Your task to perform on an android device: change notifications settings Image 0: 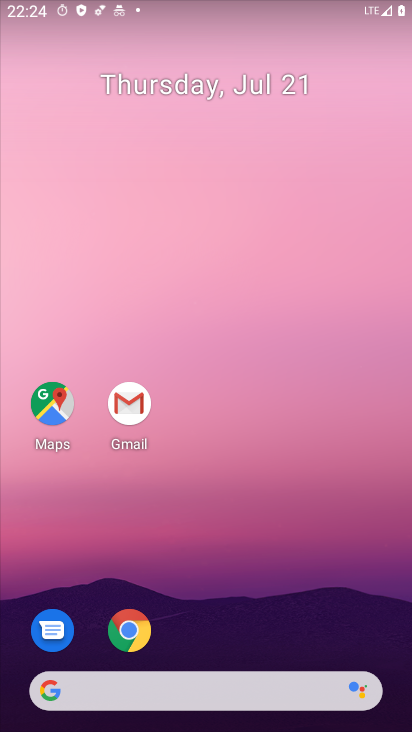
Step 0: drag from (238, 621) to (191, 203)
Your task to perform on an android device: change notifications settings Image 1: 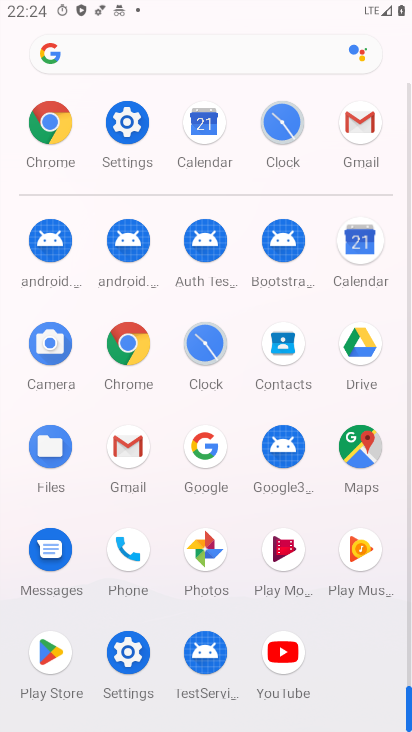
Step 1: click (141, 643)
Your task to perform on an android device: change notifications settings Image 2: 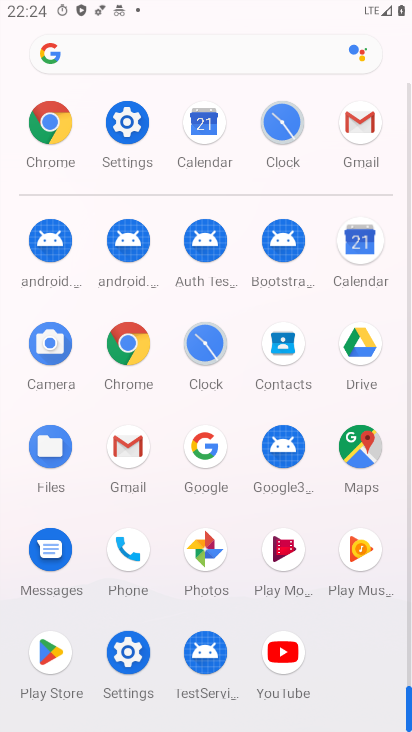
Step 2: click (141, 640)
Your task to perform on an android device: change notifications settings Image 3: 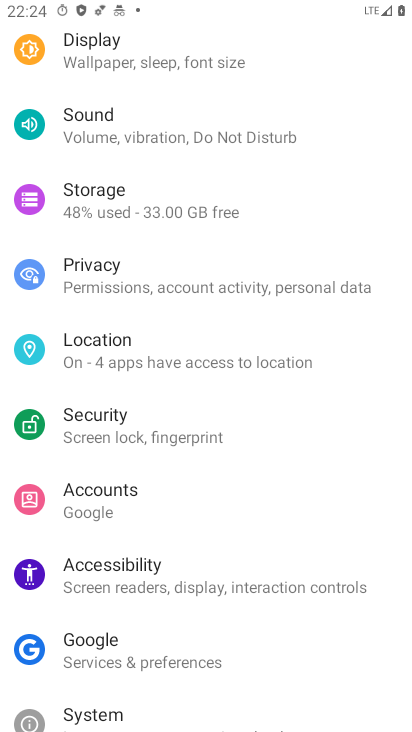
Step 3: drag from (131, 169) to (132, 529)
Your task to perform on an android device: change notifications settings Image 4: 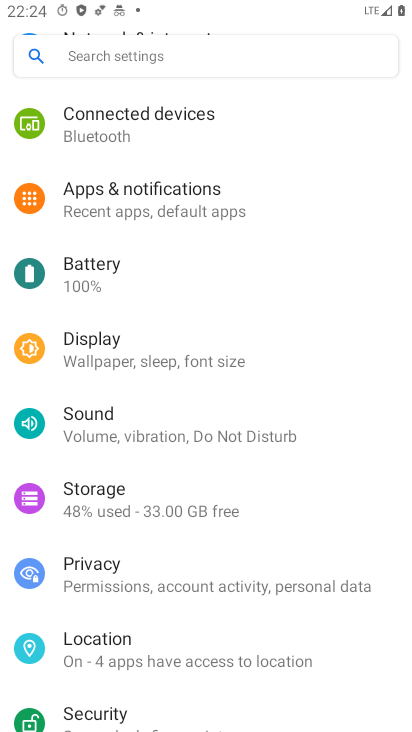
Step 4: drag from (85, 199) to (117, 467)
Your task to perform on an android device: change notifications settings Image 5: 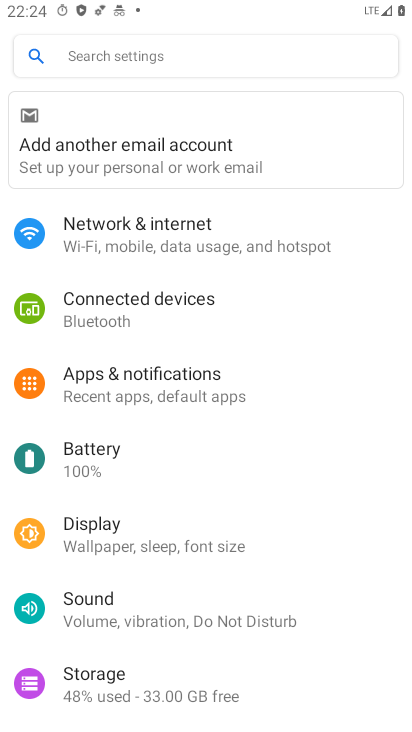
Step 5: click (147, 370)
Your task to perform on an android device: change notifications settings Image 6: 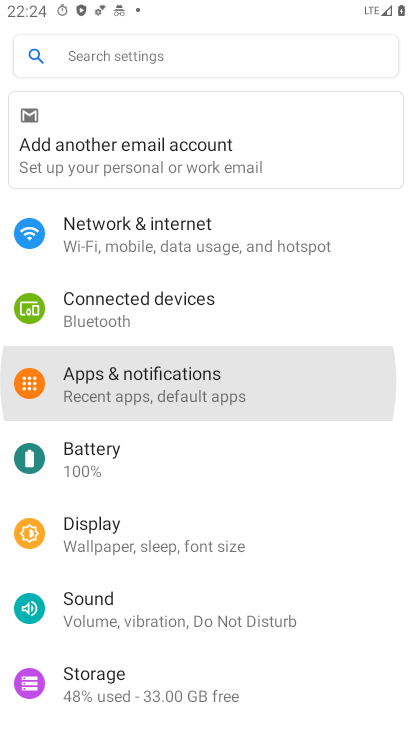
Step 6: click (145, 372)
Your task to perform on an android device: change notifications settings Image 7: 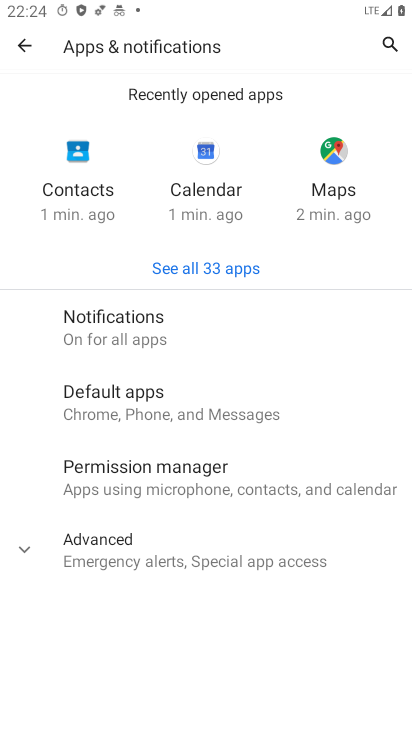
Step 7: click (106, 321)
Your task to perform on an android device: change notifications settings Image 8: 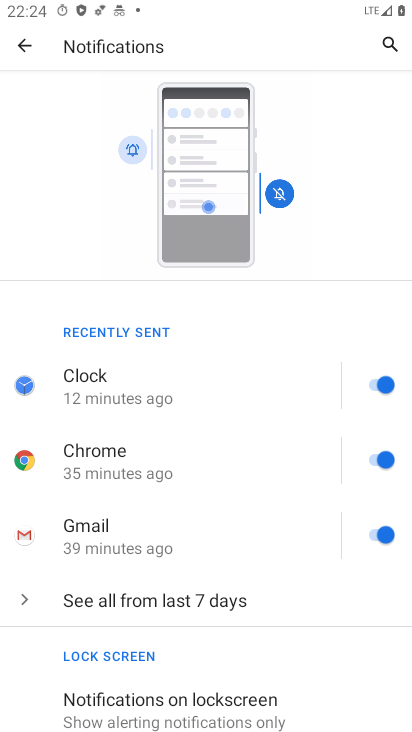
Step 8: click (383, 378)
Your task to perform on an android device: change notifications settings Image 9: 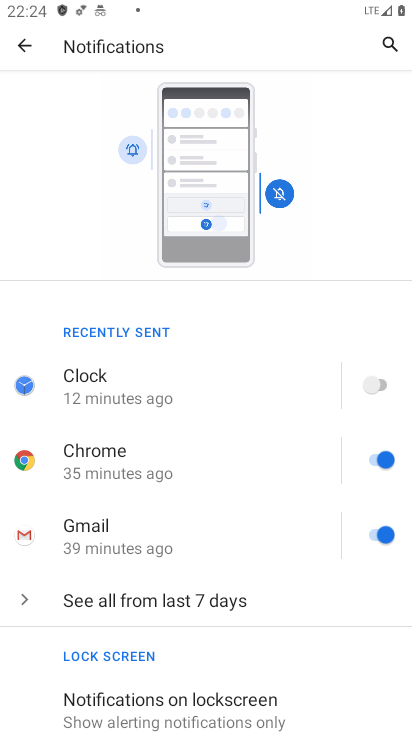
Step 9: click (386, 463)
Your task to perform on an android device: change notifications settings Image 10: 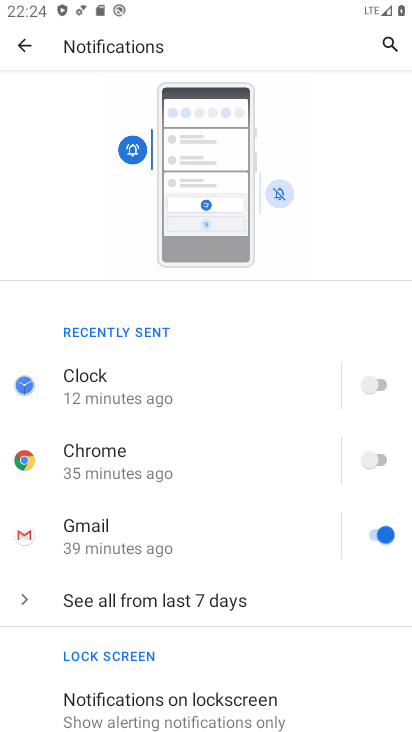
Step 10: click (385, 533)
Your task to perform on an android device: change notifications settings Image 11: 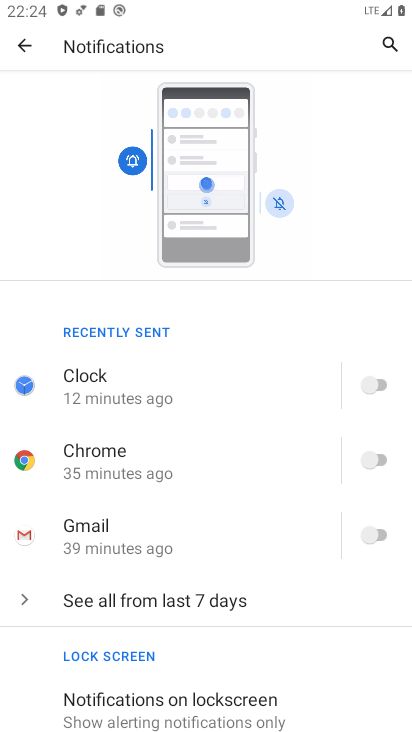
Step 11: click (203, 353)
Your task to perform on an android device: change notifications settings Image 12: 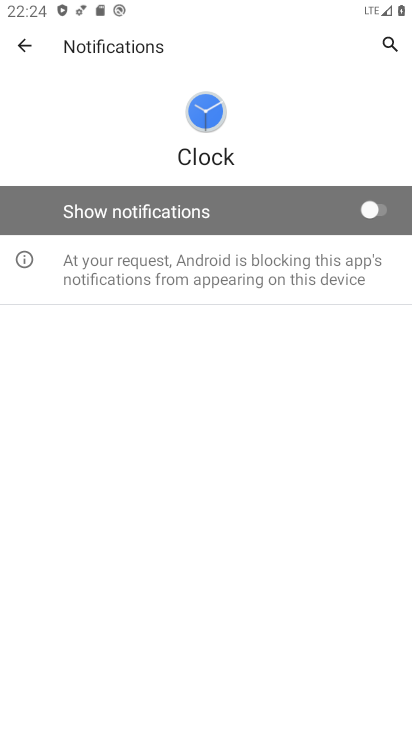
Step 12: click (235, 707)
Your task to perform on an android device: change notifications settings Image 13: 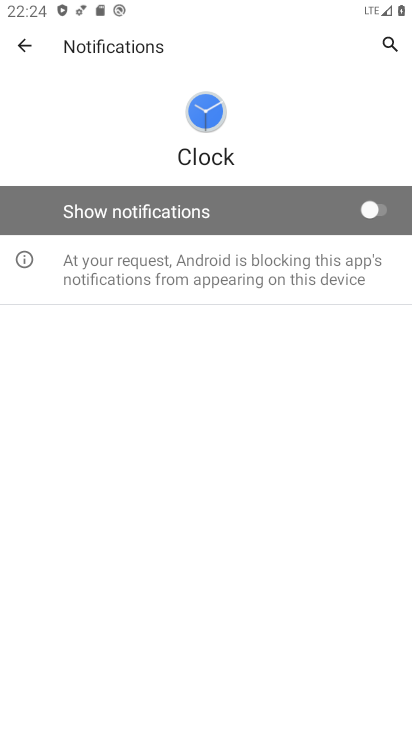
Step 13: task complete